Your task to perform on an android device: Open sound settings Image 0: 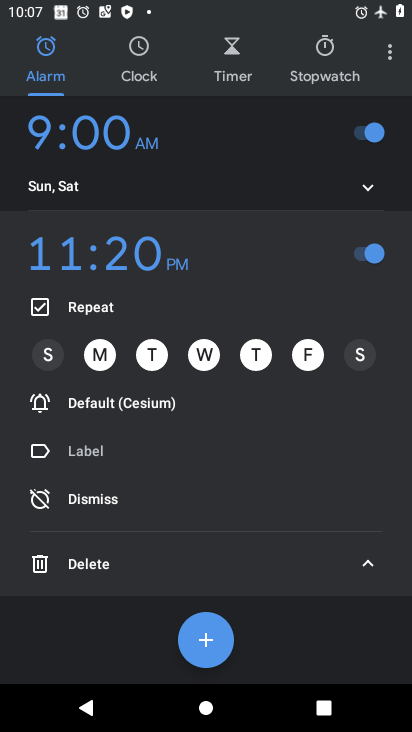
Step 0: press home button
Your task to perform on an android device: Open sound settings Image 1: 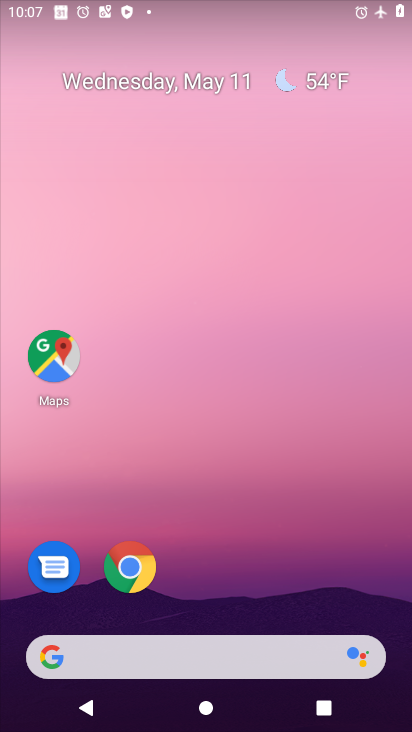
Step 1: drag from (223, 443) to (328, 4)
Your task to perform on an android device: Open sound settings Image 2: 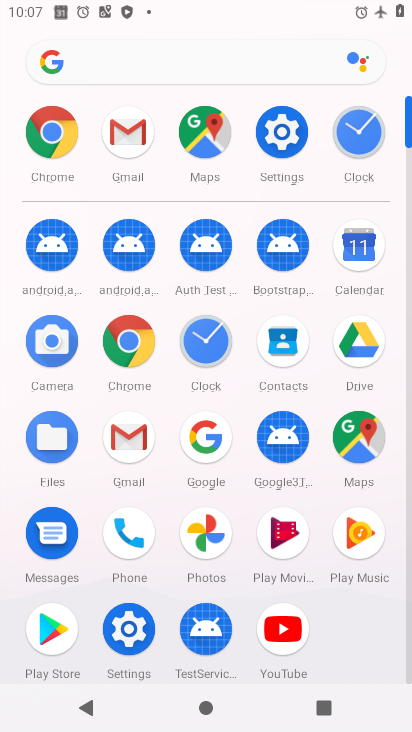
Step 2: click (286, 146)
Your task to perform on an android device: Open sound settings Image 3: 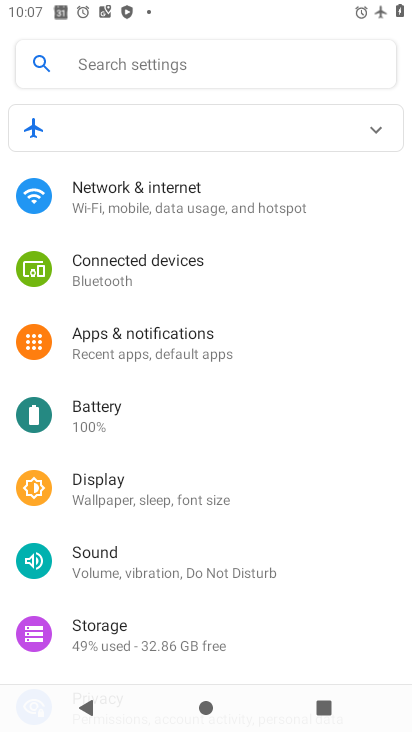
Step 3: click (120, 583)
Your task to perform on an android device: Open sound settings Image 4: 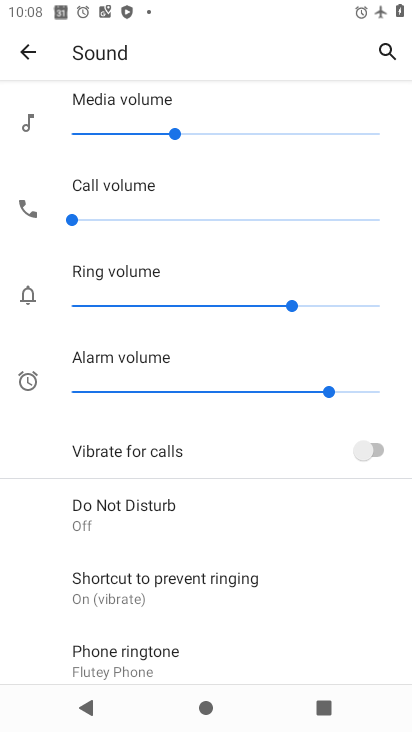
Step 4: task complete